Your task to perform on an android device: install app "AliExpress" Image 0: 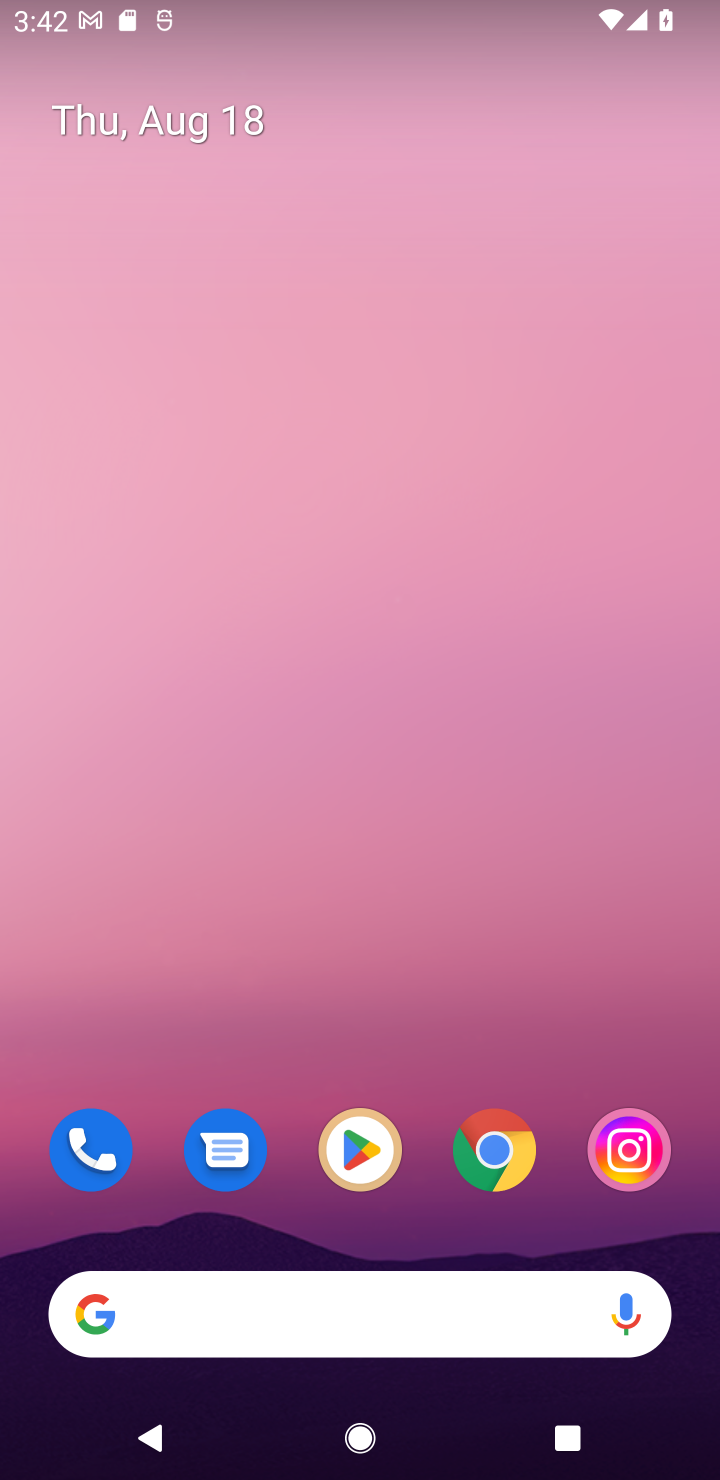
Step 0: click (364, 1146)
Your task to perform on an android device: install app "AliExpress" Image 1: 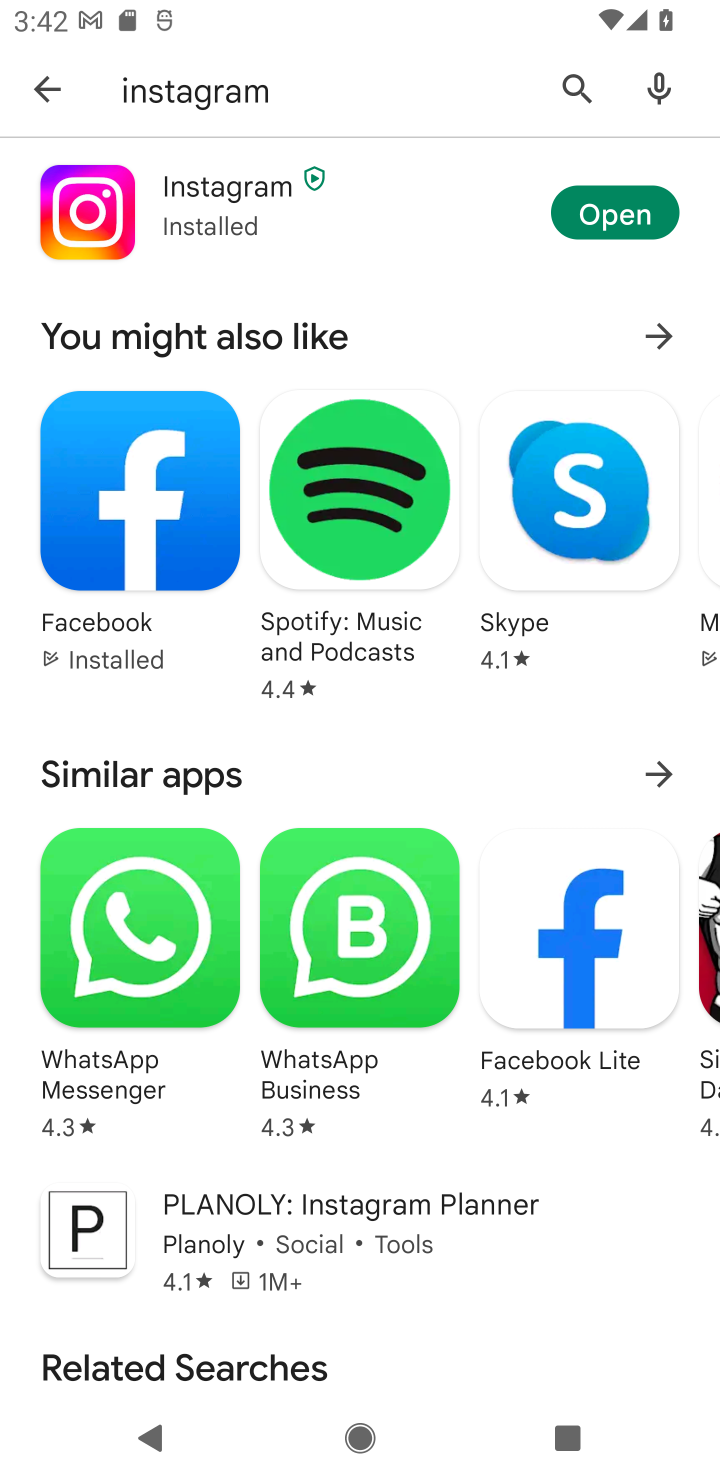
Step 1: click (579, 89)
Your task to perform on an android device: install app "AliExpress" Image 2: 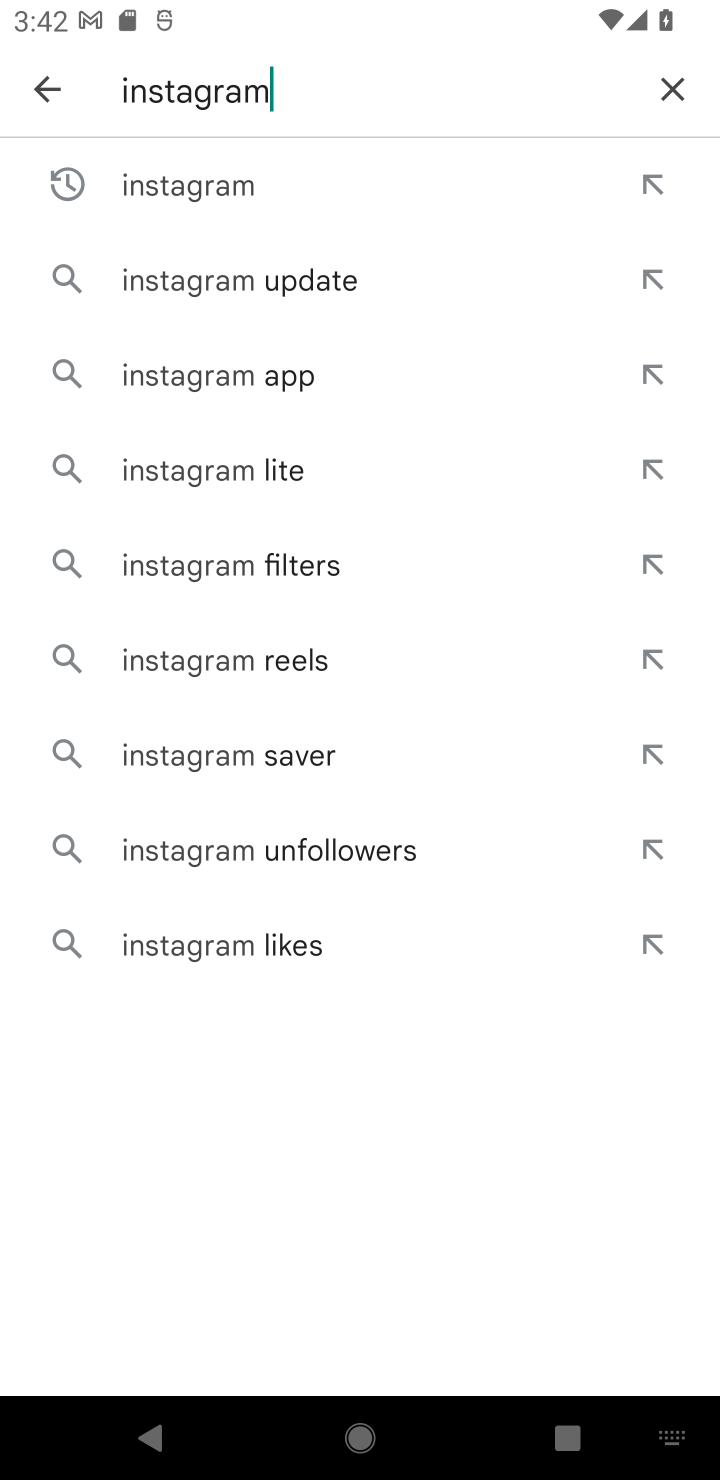
Step 2: click (671, 84)
Your task to perform on an android device: install app "AliExpress" Image 3: 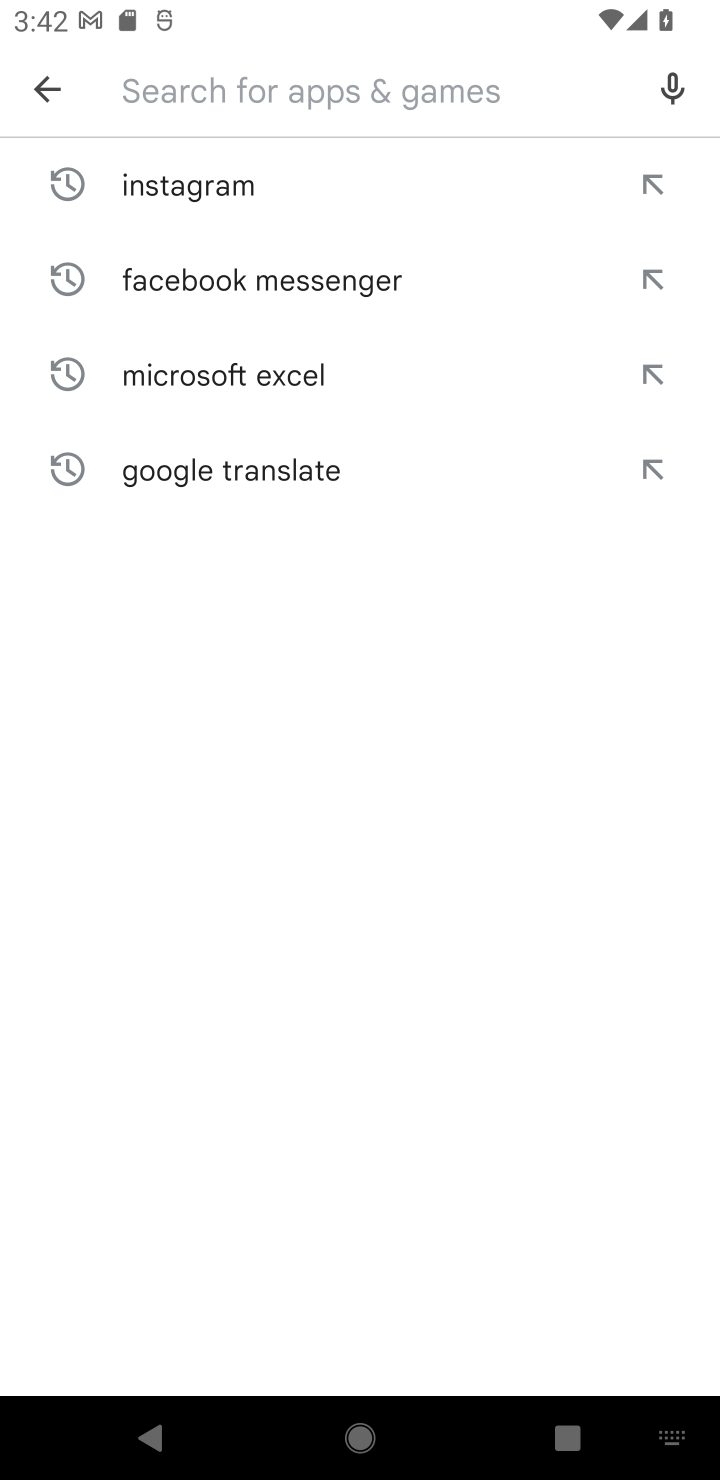
Step 3: type "AliExpress"
Your task to perform on an android device: install app "AliExpress" Image 4: 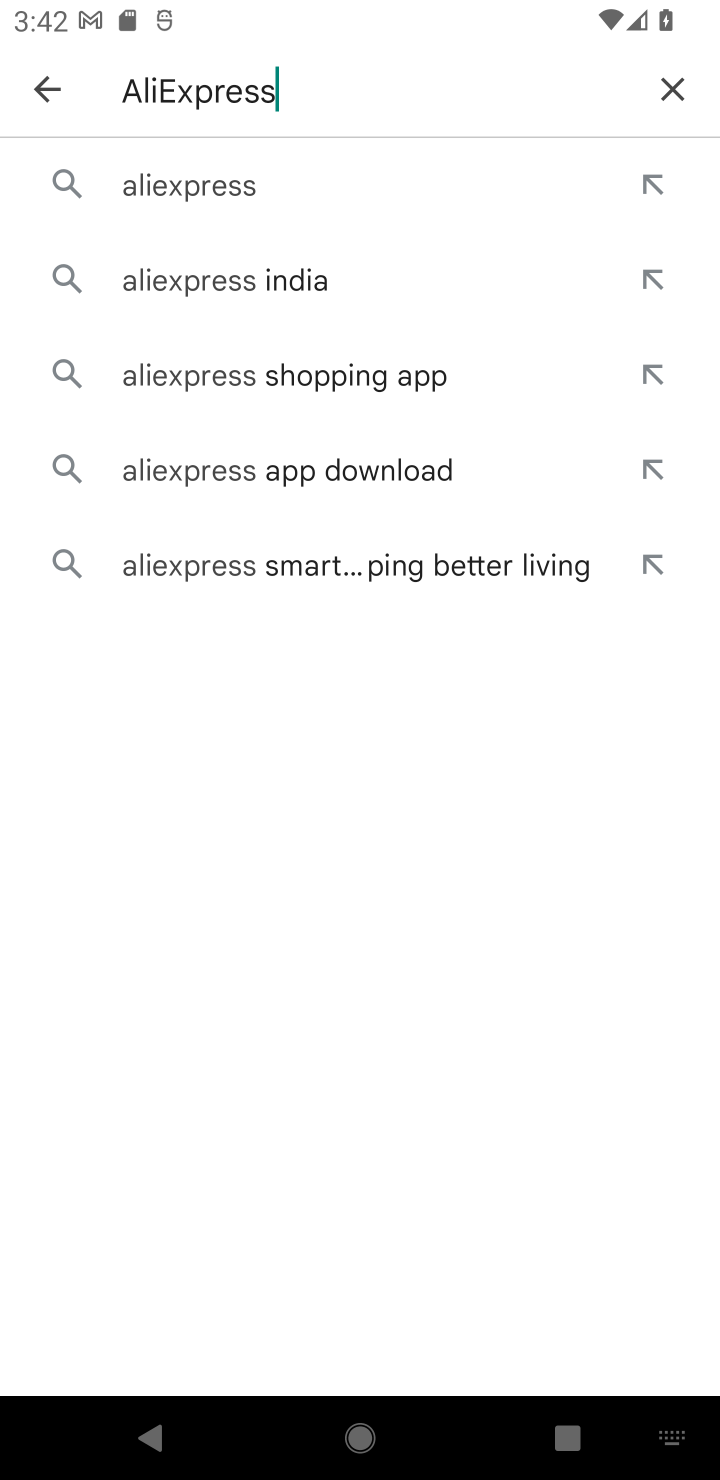
Step 4: click (233, 196)
Your task to perform on an android device: install app "AliExpress" Image 5: 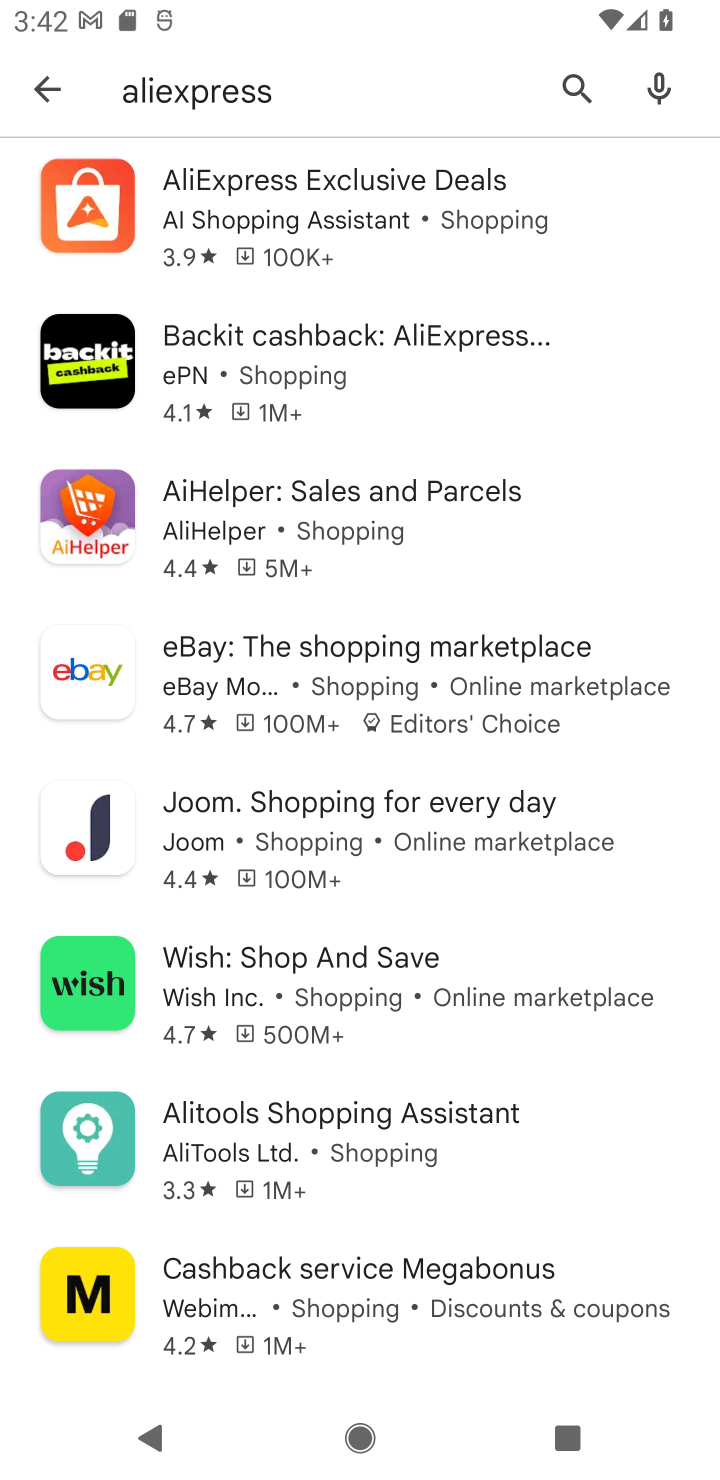
Step 5: click (263, 188)
Your task to perform on an android device: install app "AliExpress" Image 6: 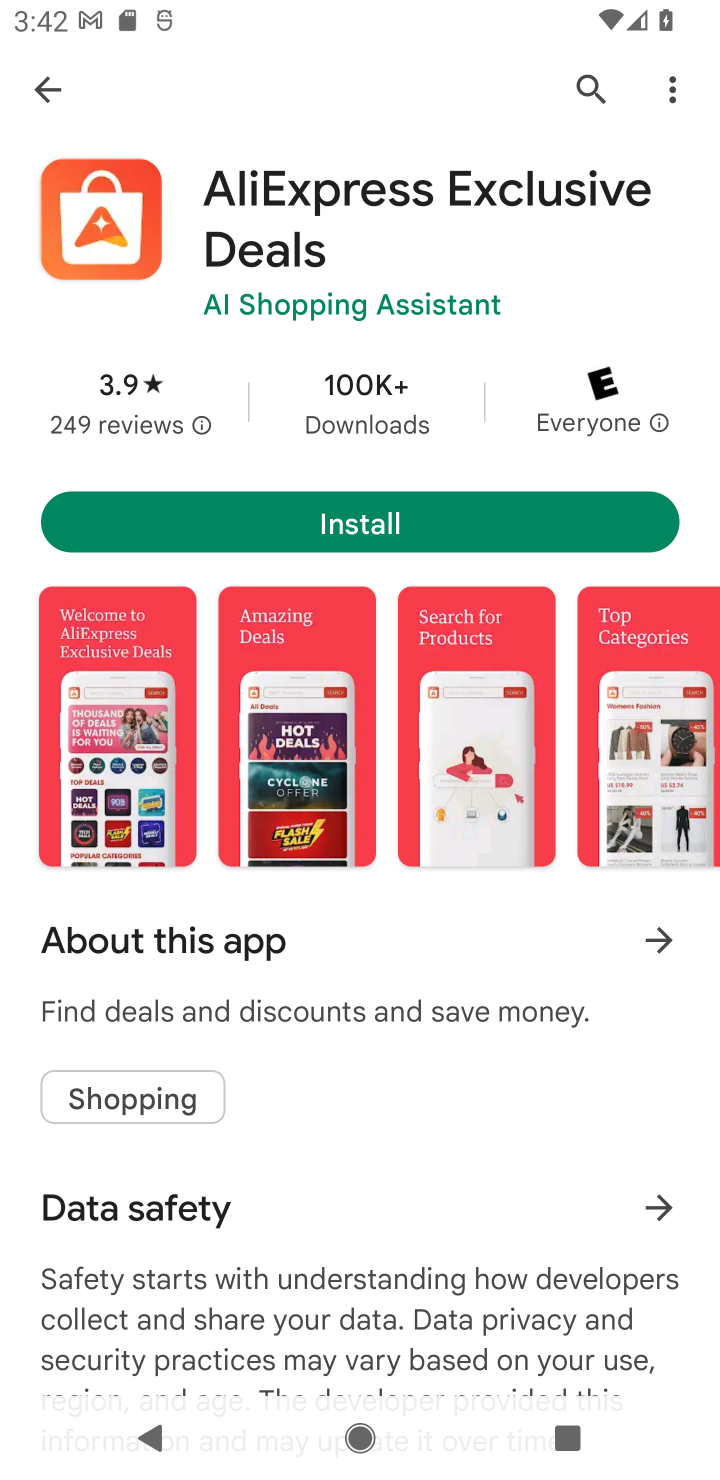
Step 6: click (361, 521)
Your task to perform on an android device: install app "AliExpress" Image 7: 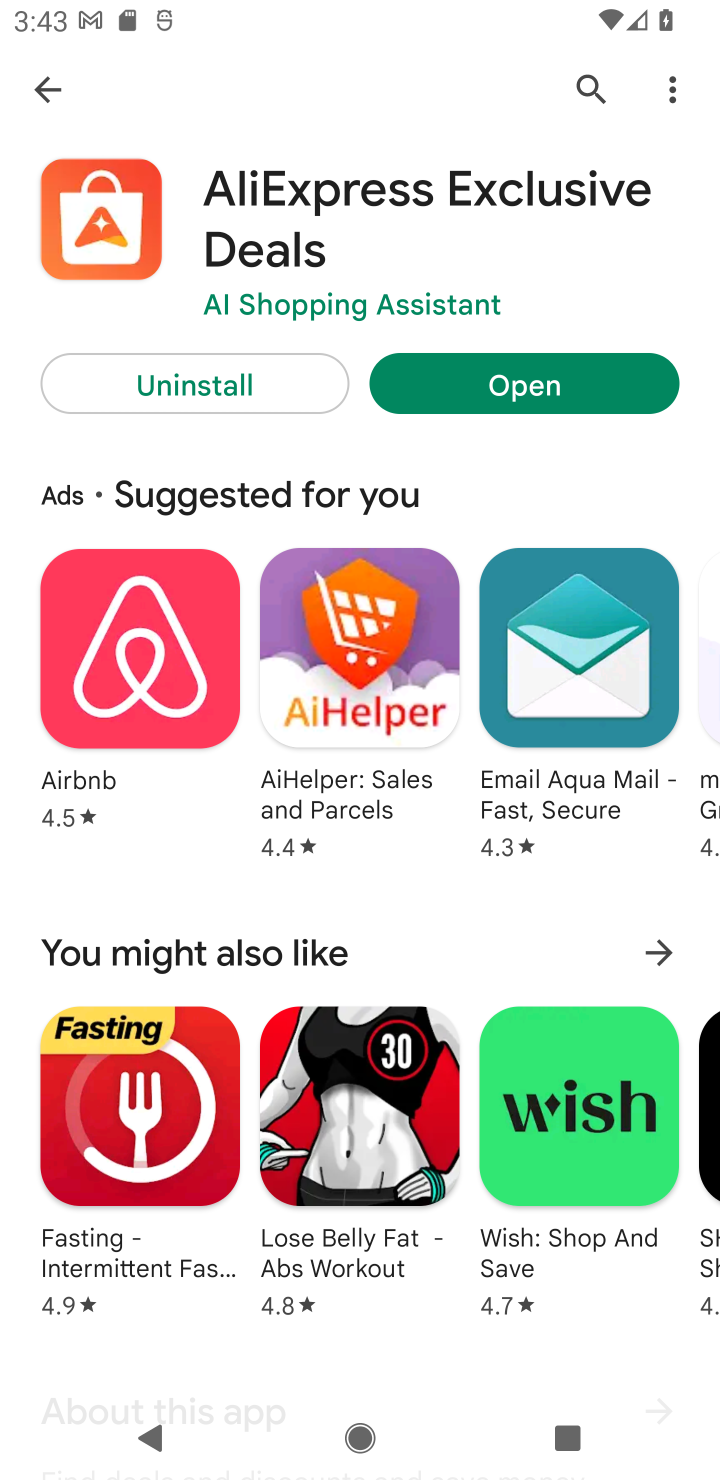
Step 7: task complete